Your task to perform on an android device: Do I have any events today? Image 0: 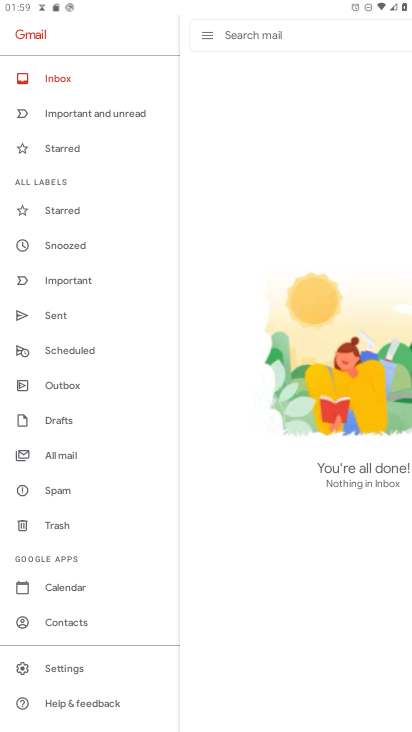
Step 0: press home button
Your task to perform on an android device: Do I have any events today? Image 1: 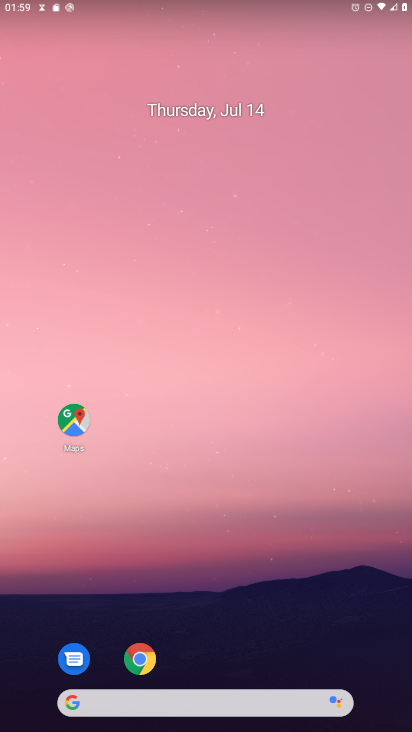
Step 1: click (132, 701)
Your task to perform on an android device: Do I have any events today? Image 2: 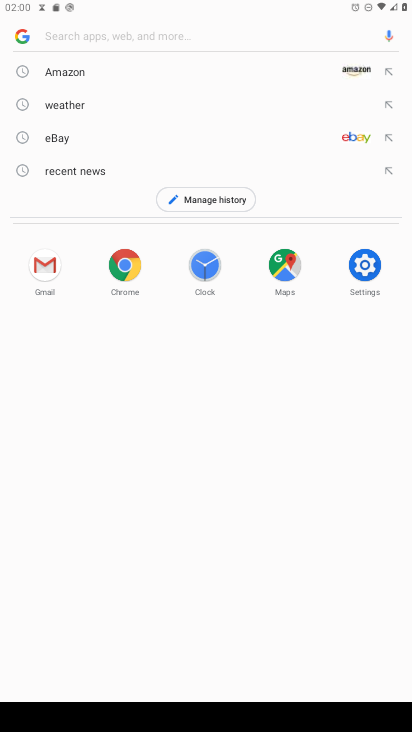
Step 2: type "Do I have any events today?"
Your task to perform on an android device: Do I have any events today? Image 3: 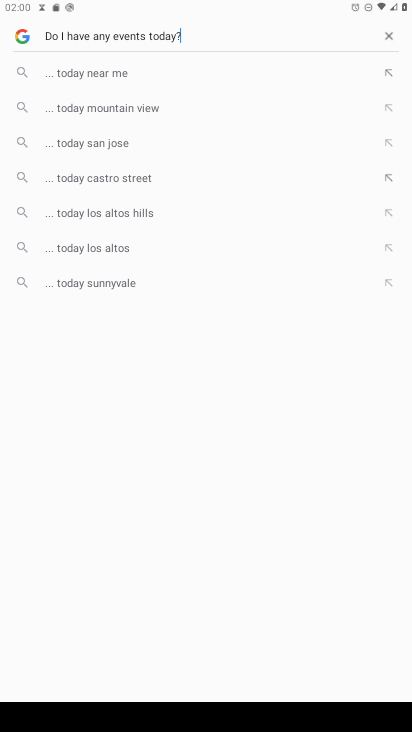
Step 3: type ""
Your task to perform on an android device: Do I have any events today? Image 4: 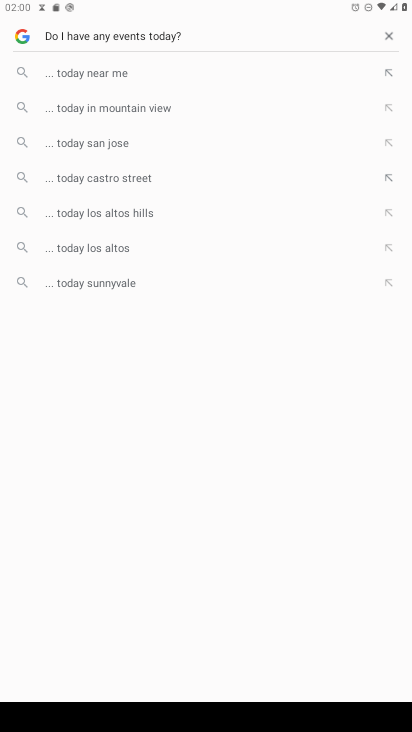
Step 4: type ""
Your task to perform on an android device: Do I have any events today? Image 5: 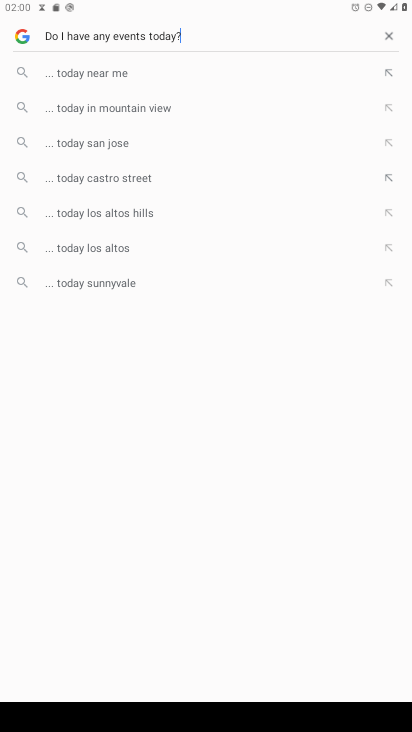
Step 5: type ""
Your task to perform on an android device: Do I have any events today? Image 6: 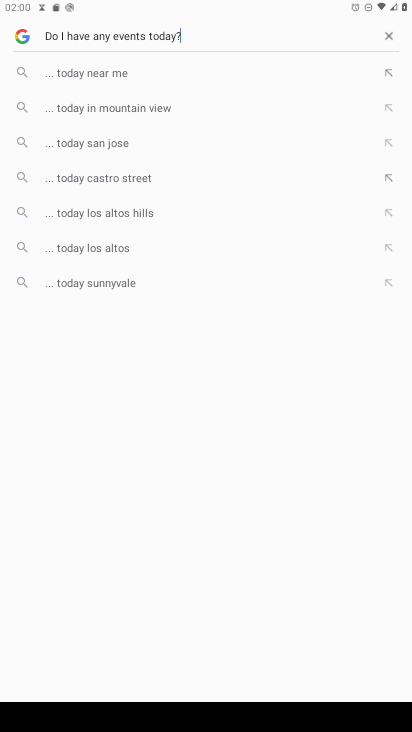
Step 6: task complete